Your task to perform on an android device: turn off picture-in-picture Image 0: 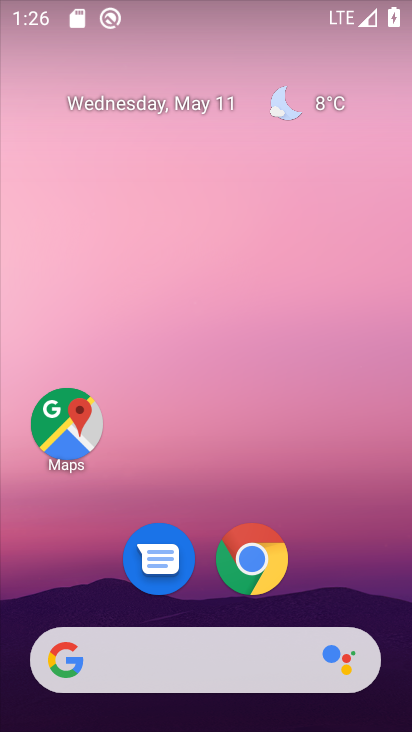
Step 0: drag from (176, 719) to (176, 248)
Your task to perform on an android device: turn off picture-in-picture Image 1: 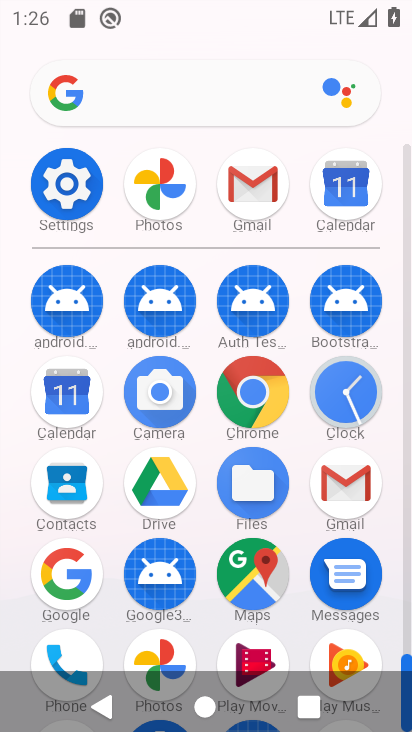
Step 1: click (77, 177)
Your task to perform on an android device: turn off picture-in-picture Image 2: 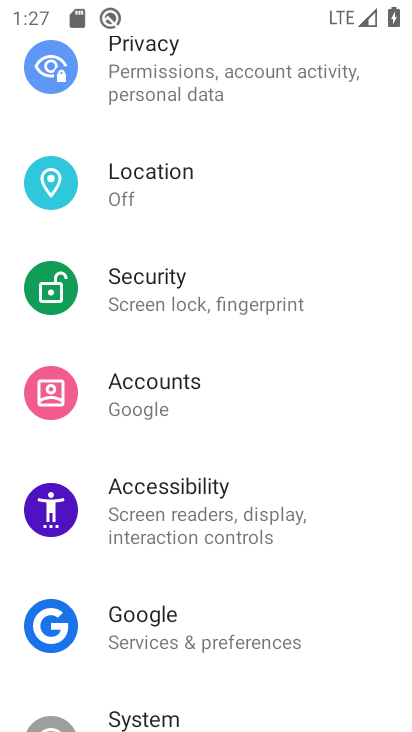
Step 2: drag from (196, 691) to (200, 308)
Your task to perform on an android device: turn off picture-in-picture Image 3: 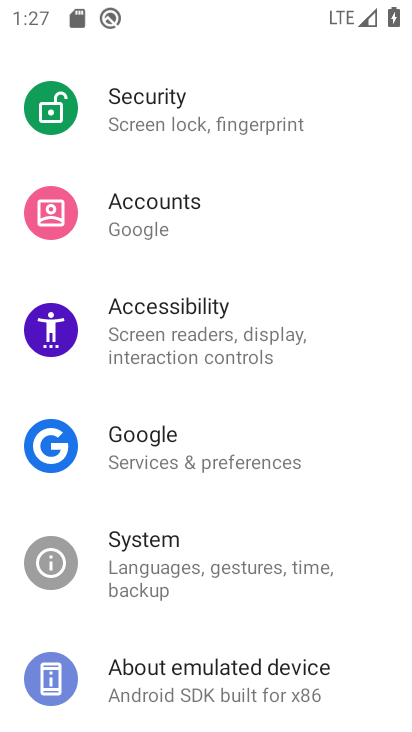
Step 3: drag from (265, 215) to (313, 578)
Your task to perform on an android device: turn off picture-in-picture Image 4: 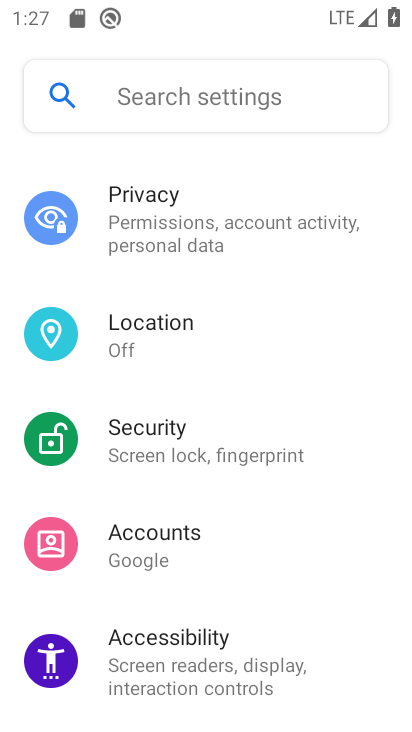
Step 4: drag from (277, 184) to (331, 601)
Your task to perform on an android device: turn off picture-in-picture Image 5: 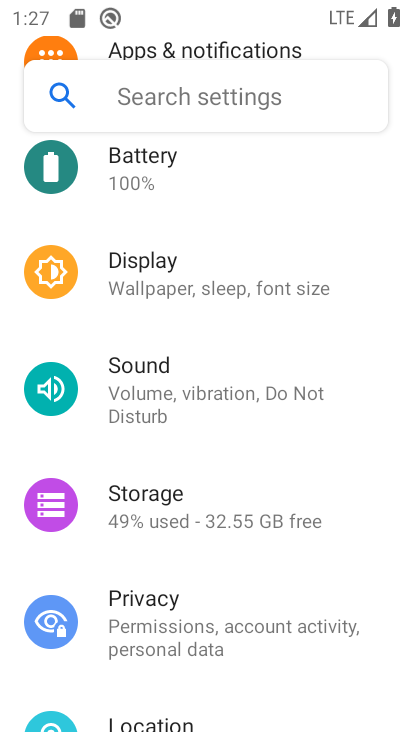
Step 5: drag from (251, 196) to (274, 541)
Your task to perform on an android device: turn off picture-in-picture Image 6: 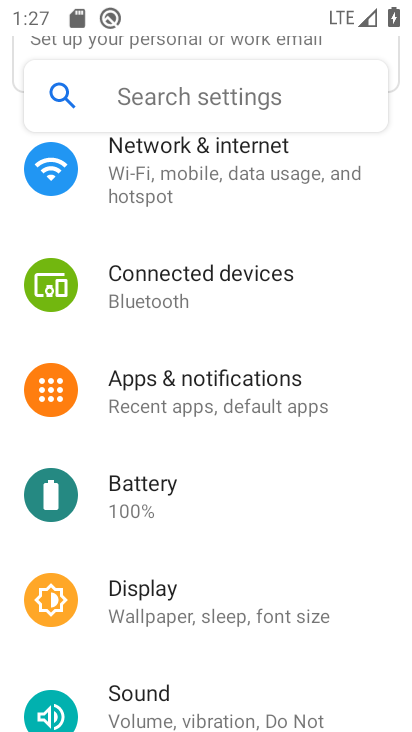
Step 6: drag from (192, 222) to (219, 586)
Your task to perform on an android device: turn off picture-in-picture Image 7: 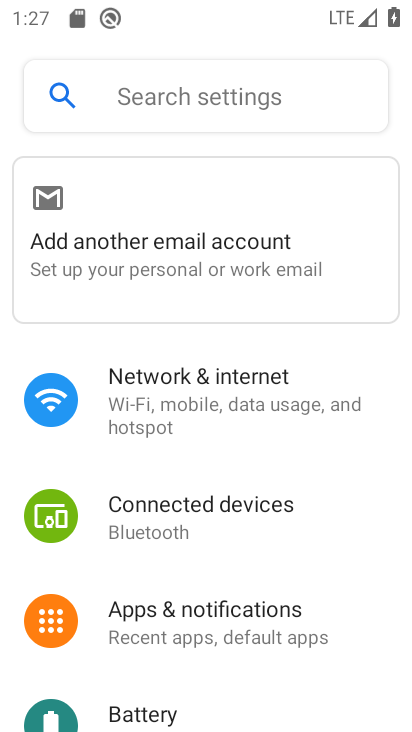
Step 7: click (195, 628)
Your task to perform on an android device: turn off picture-in-picture Image 8: 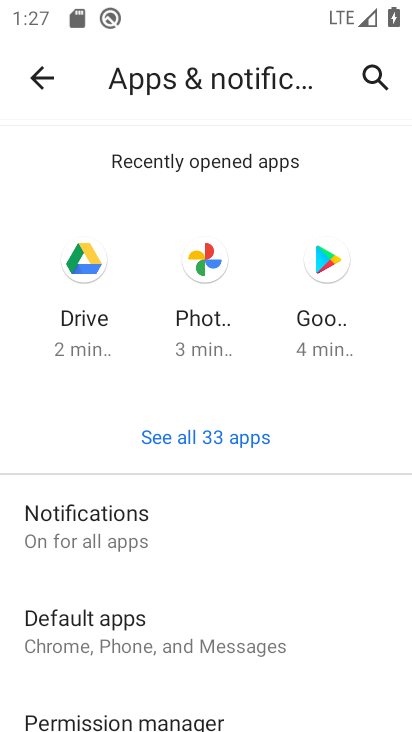
Step 8: drag from (132, 677) to (133, 322)
Your task to perform on an android device: turn off picture-in-picture Image 9: 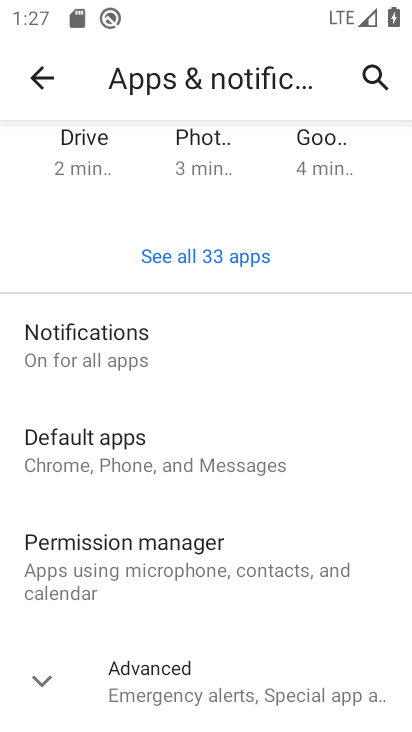
Step 9: click (164, 682)
Your task to perform on an android device: turn off picture-in-picture Image 10: 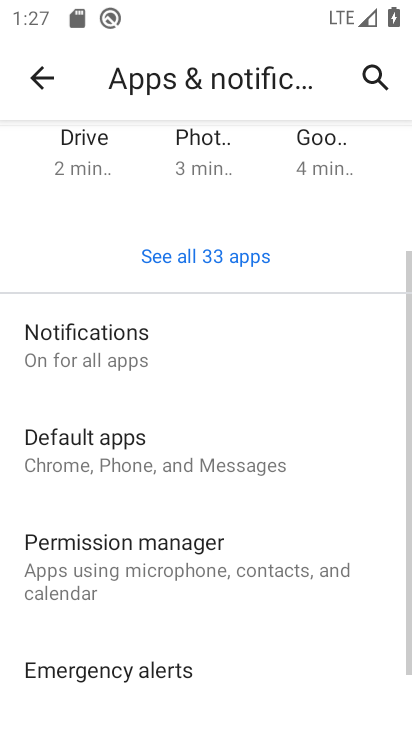
Step 10: drag from (207, 701) to (224, 353)
Your task to perform on an android device: turn off picture-in-picture Image 11: 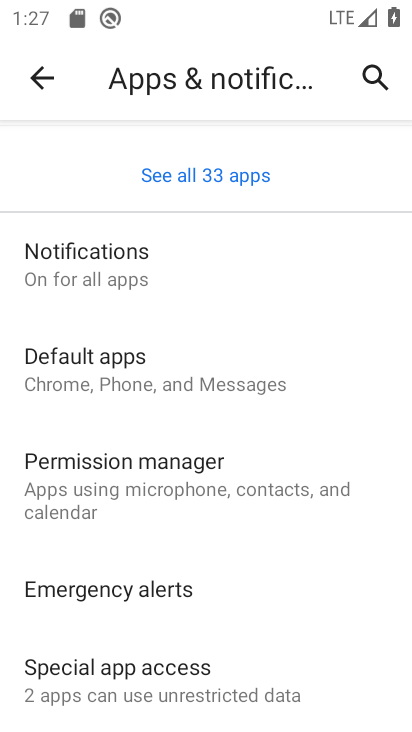
Step 11: click (156, 678)
Your task to perform on an android device: turn off picture-in-picture Image 12: 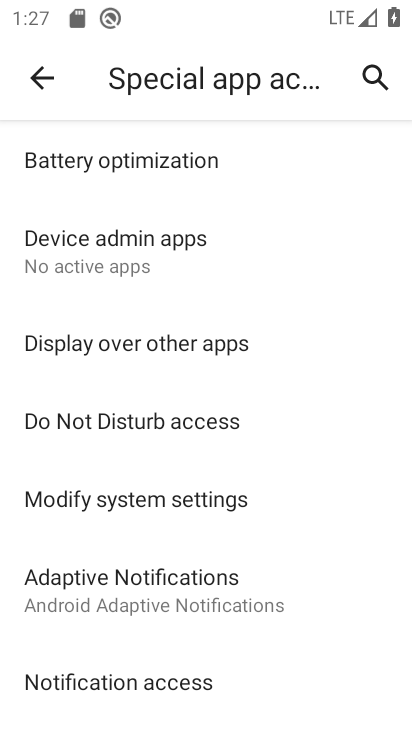
Step 12: drag from (157, 661) to (158, 278)
Your task to perform on an android device: turn off picture-in-picture Image 13: 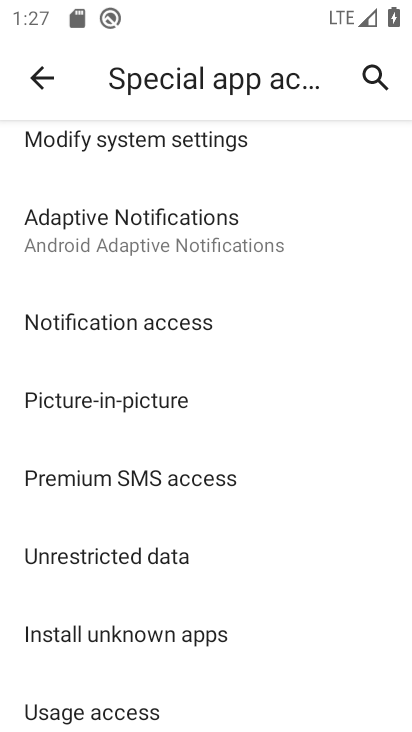
Step 13: click (140, 394)
Your task to perform on an android device: turn off picture-in-picture Image 14: 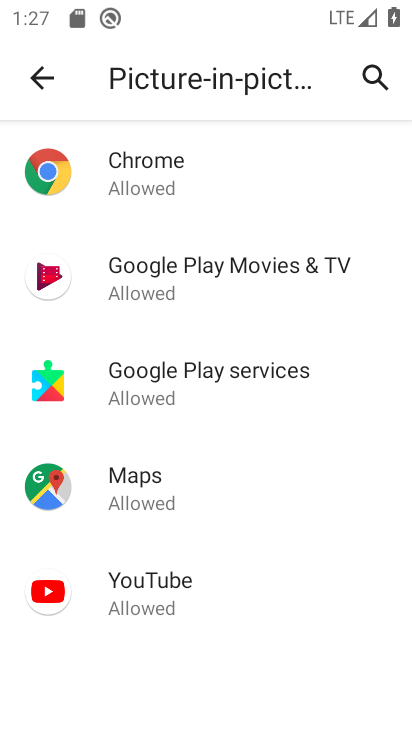
Step 14: click (150, 592)
Your task to perform on an android device: turn off picture-in-picture Image 15: 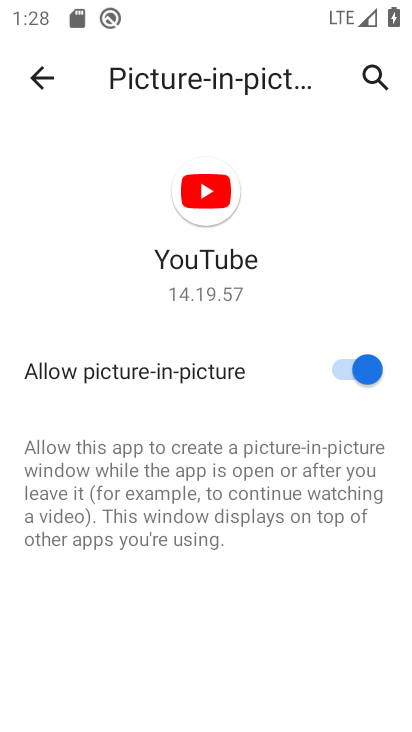
Step 15: click (340, 367)
Your task to perform on an android device: turn off picture-in-picture Image 16: 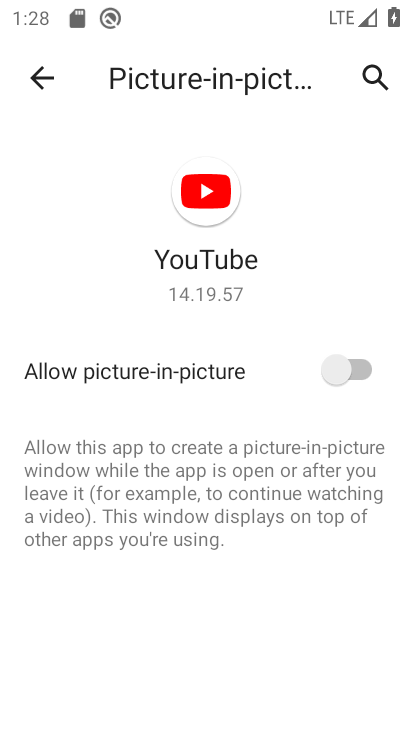
Step 16: task complete